Your task to perform on an android device: turn on the 12-hour format for clock Image 0: 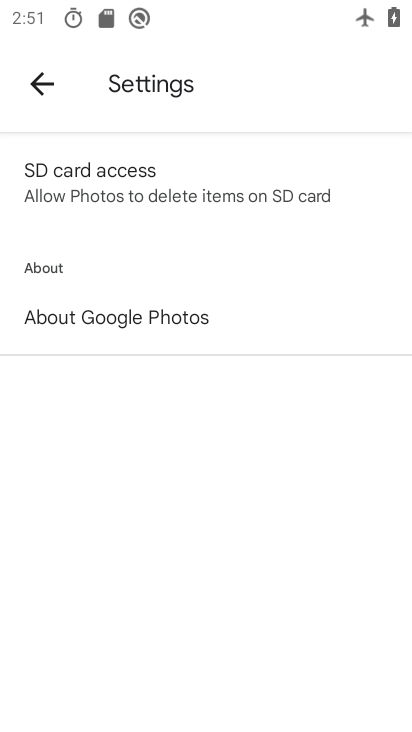
Step 0: press home button
Your task to perform on an android device: turn on the 12-hour format for clock Image 1: 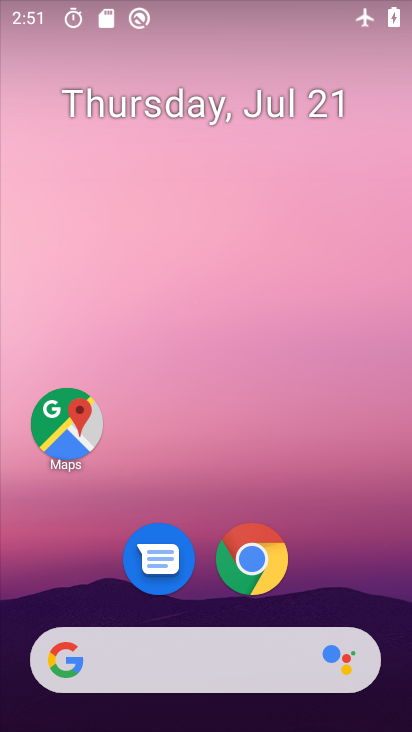
Step 1: drag from (371, 559) to (399, 89)
Your task to perform on an android device: turn on the 12-hour format for clock Image 2: 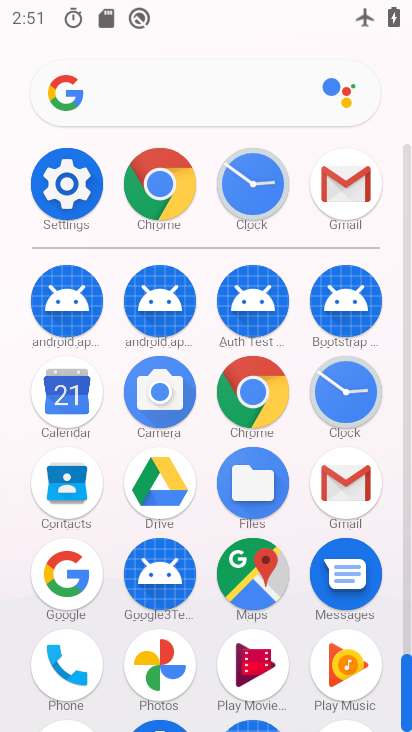
Step 2: click (339, 394)
Your task to perform on an android device: turn on the 12-hour format for clock Image 3: 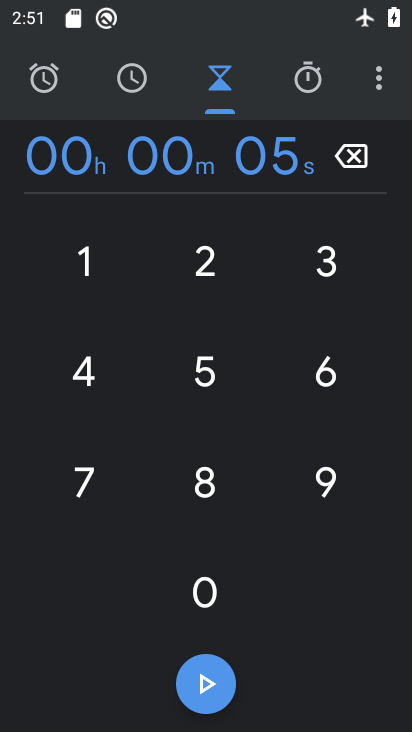
Step 3: click (378, 88)
Your task to perform on an android device: turn on the 12-hour format for clock Image 4: 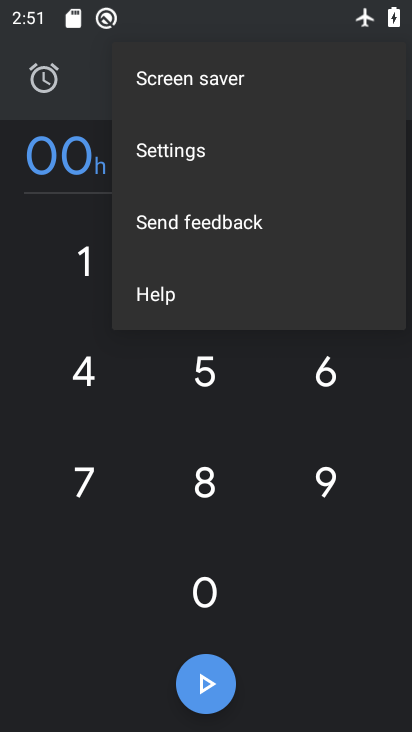
Step 4: click (214, 151)
Your task to perform on an android device: turn on the 12-hour format for clock Image 5: 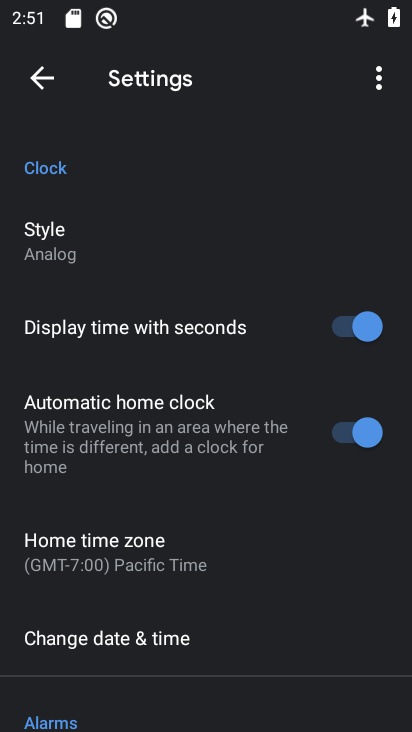
Step 5: drag from (254, 550) to (271, 455)
Your task to perform on an android device: turn on the 12-hour format for clock Image 6: 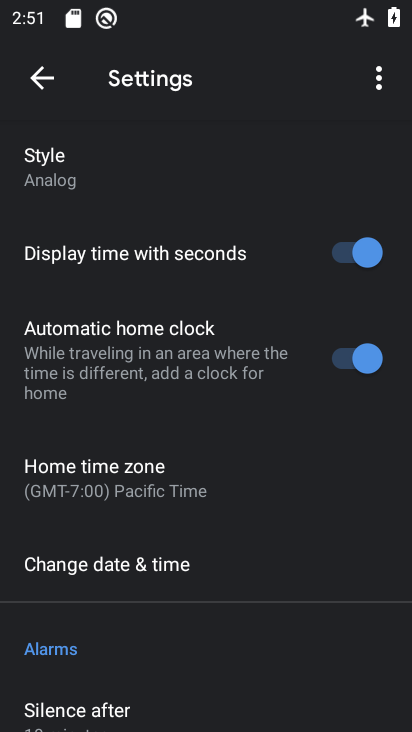
Step 6: drag from (292, 544) to (297, 447)
Your task to perform on an android device: turn on the 12-hour format for clock Image 7: 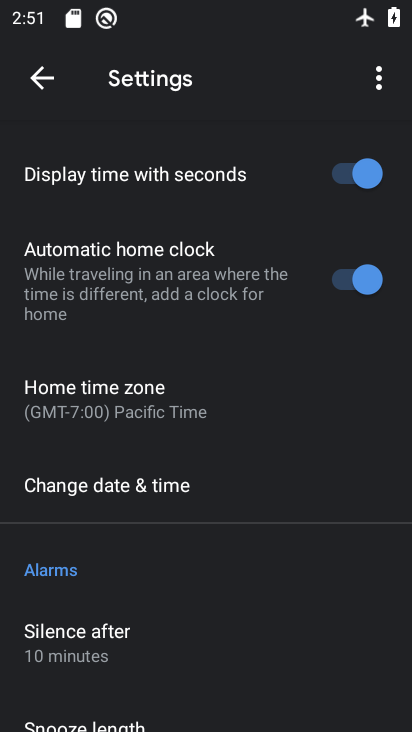
Step 7: drag from (298, 560) to (302, 460)
Your task to perform on an android device: turn on the 12-hour format for clock Image 8: 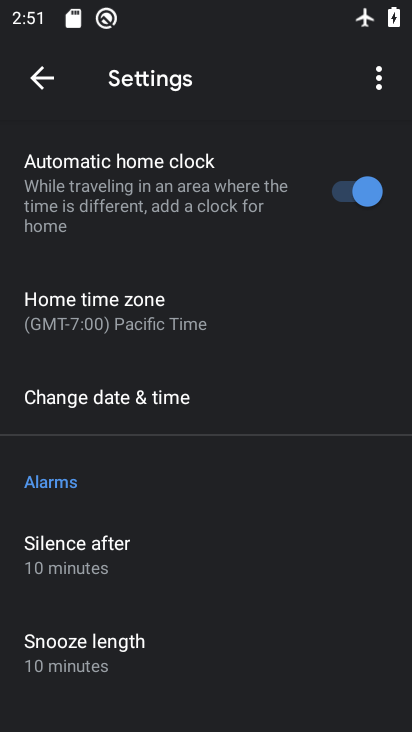
Step 8: drag from (305, 522) to (306, 416)
Your task to perform on an android device: turn on the 12-hour format for clock Image 9: 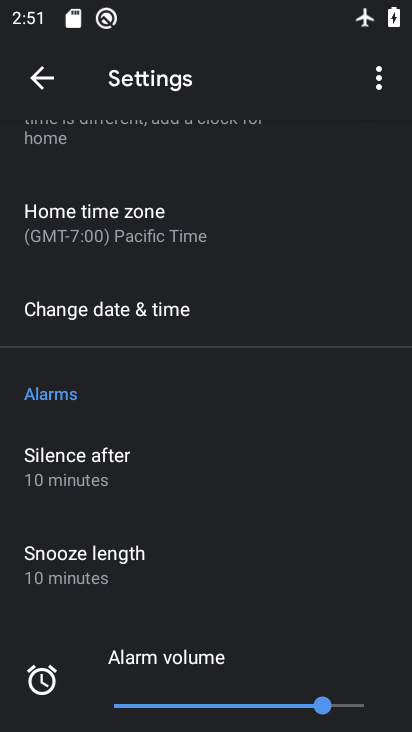
Step 9: drag from (302, 494) to (307, 396)
Your task to perform on an android device: turn on the 12-hour format for clock Image 10: 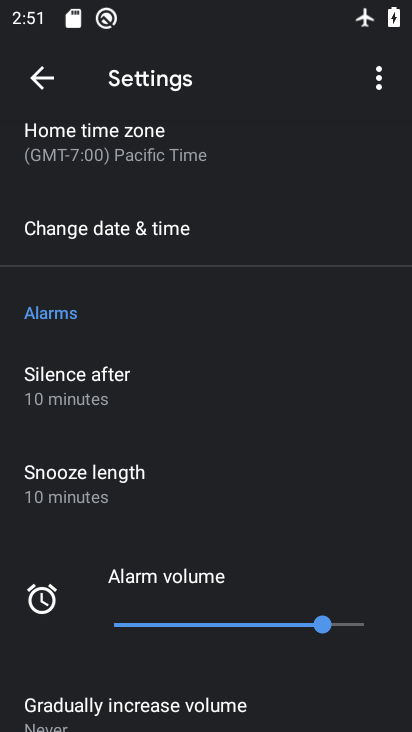
Step 10: drag from (295, 438) to (299, 357)
Your task to perform on an android device: turn on the 12-hour format for clock Image 11: 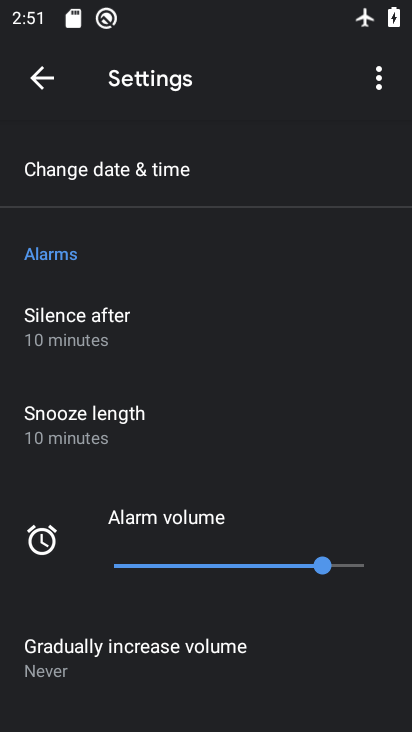
Step 11: drag from (282, 234) to (283, 373)
Your task to perform on an android device: turn on the 12-hour format for clock Image 12: 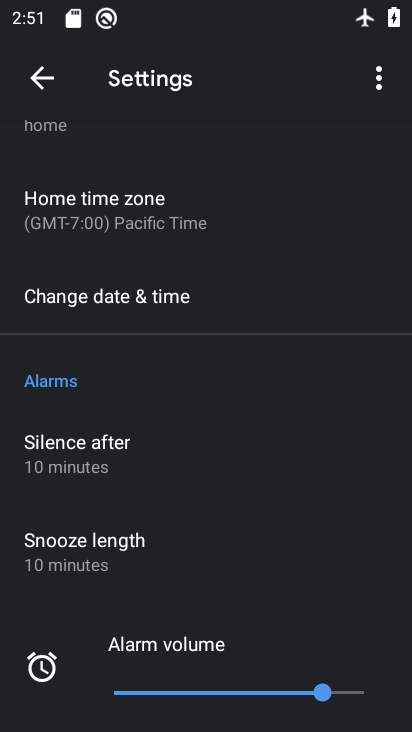
Step 12: drag from (283, 218) to (283, 340)
Your task to perform on an android device: turn on the 12-hour format for clock Image 13: 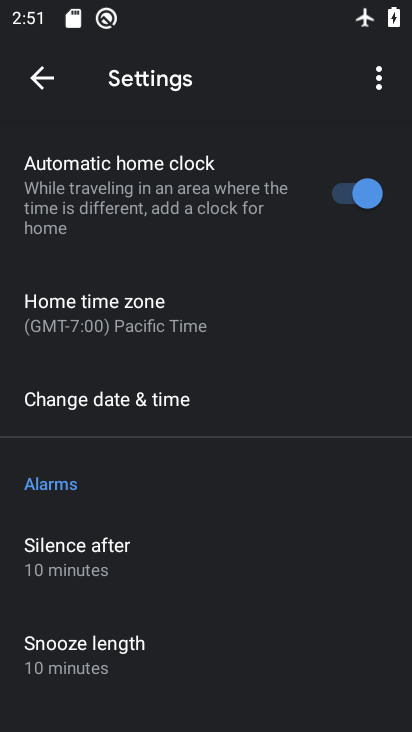
Step 13: click (271, 401)
Your task to perform on an android device: turn on the 12-hour format for clock Image 14: 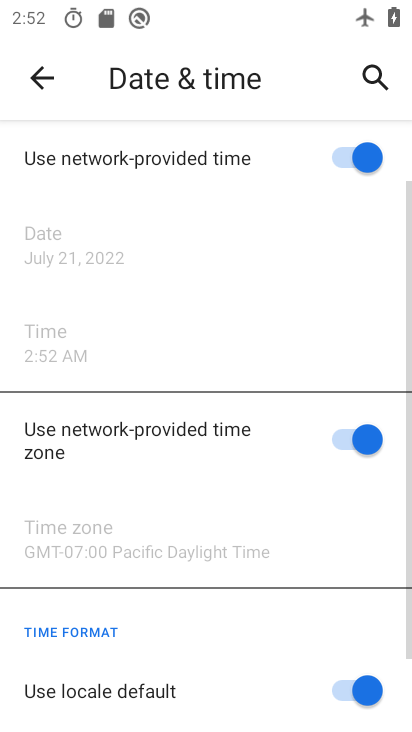
Step 14: task complete